Your task to perform on an android device: remove spam from my inbox in the gmail app Image 0: 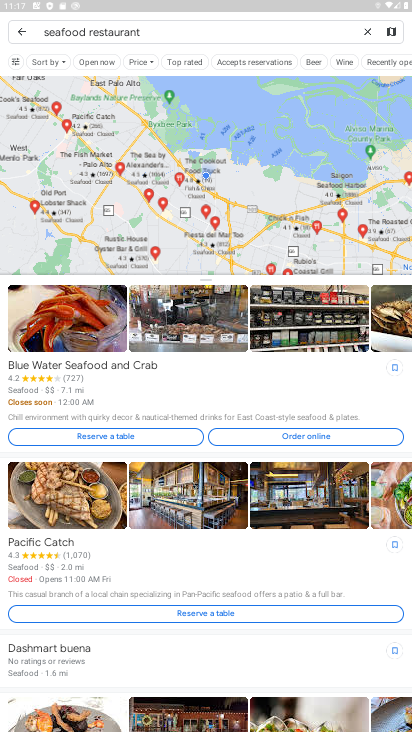
Step 0: press home button
Your task to perform on an android device: remove spam from my inbox in the gmail app Image 1: 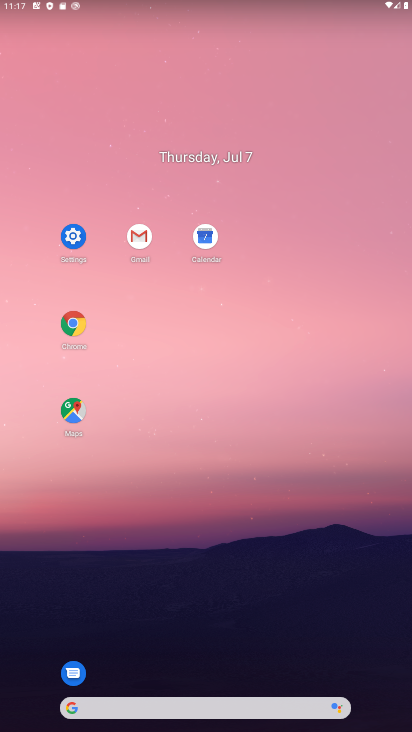
Step 1: click (142, 229)
Your task to perform on an android device: remove spam from my inbox in the gmail app Image 2: 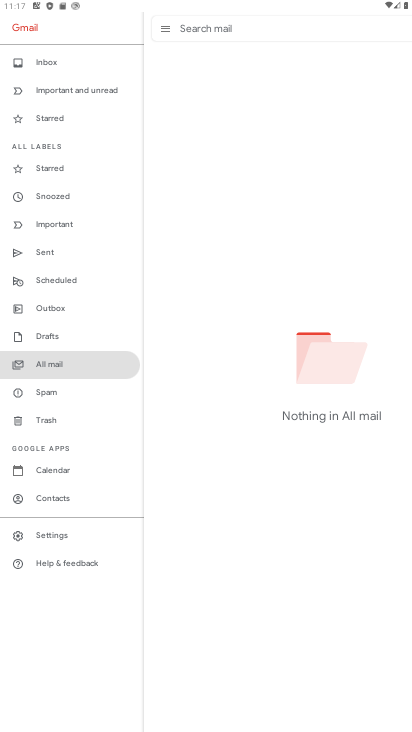
Step 2: click (65, 397)
Your task to perform on an android device: remove spam from my inbox in the gmail app Image 3: 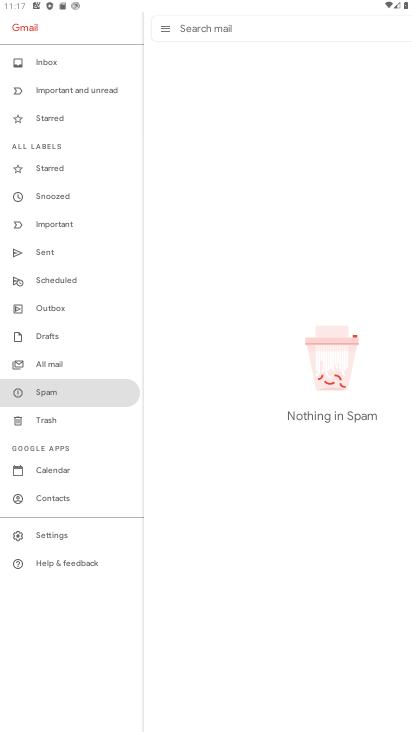
Step 3: task complete